Your task to perform on an android device: Open location settings Image 0: 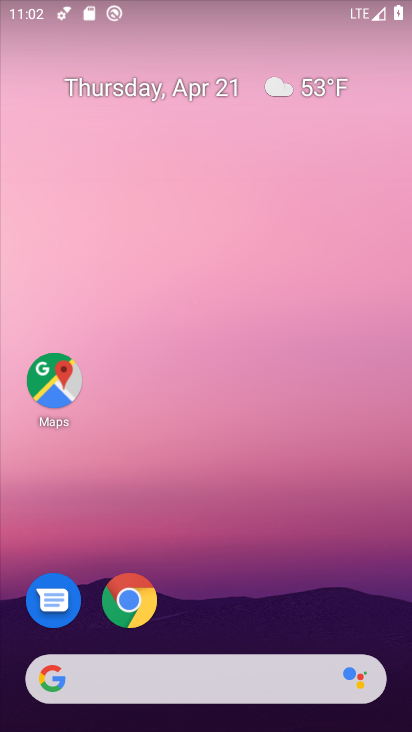
Step 0: drag from (258, 419) to (211, 32)
Your task to perform on an android device: Open location settings Image 1: 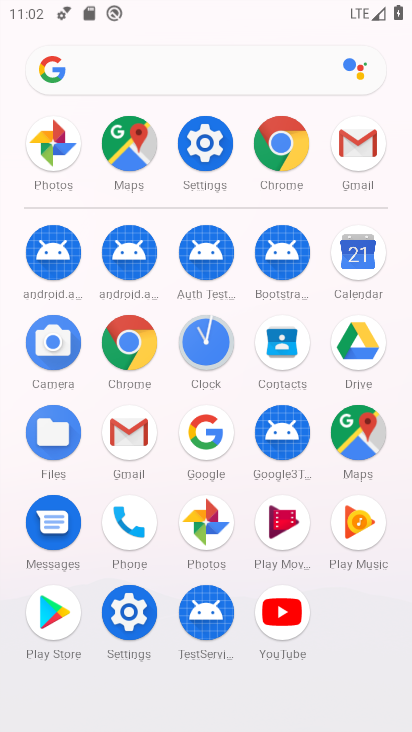
Step 1: click (202, 156)
Your task to perform on an android device: Open location settings Image 2: 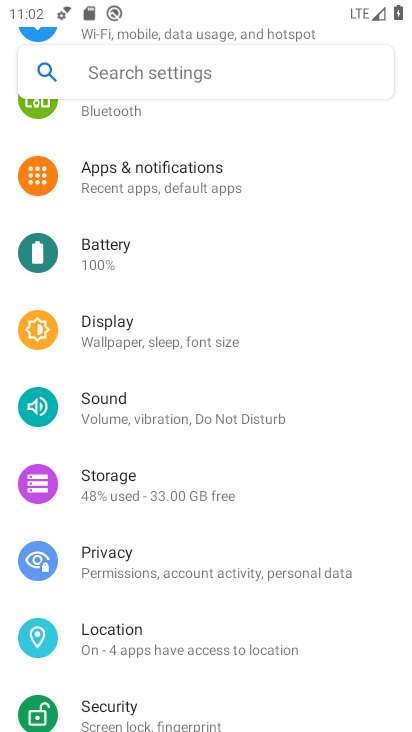
Step 2: click (157, 657)
Your task to perform on an android device: Open location settings Image 3: 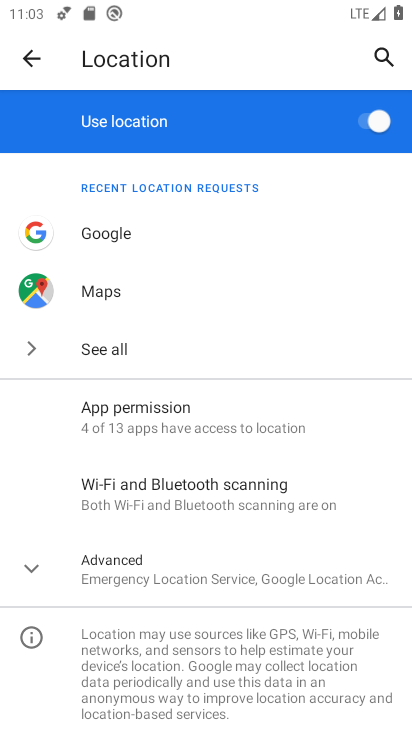
Step 3: task complete